Your task to perform on an android device: open sync settings in chrome Image 0: 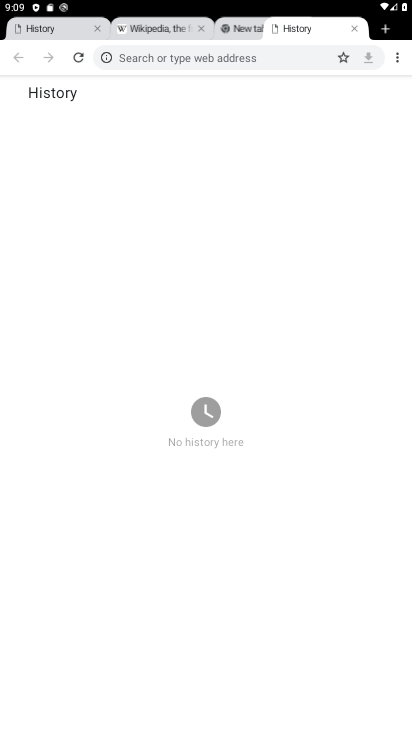
Step 0: press home button
Your task to perform on an android device: open sync settings in chrome Image 1: 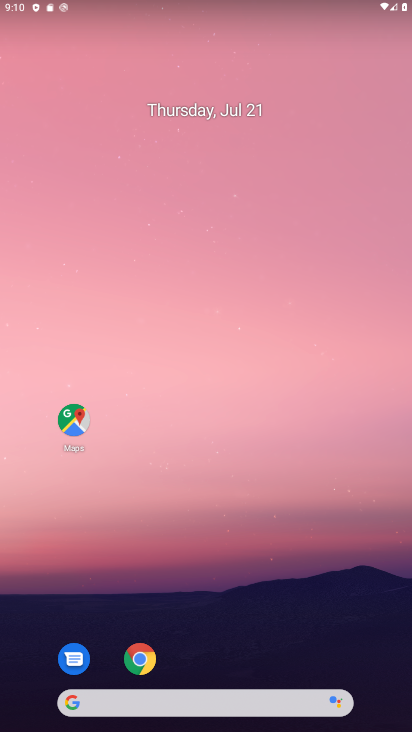
Step 1: click (166, 653)
Your task to perform on an android device: open sync settings in chrome Image 2: 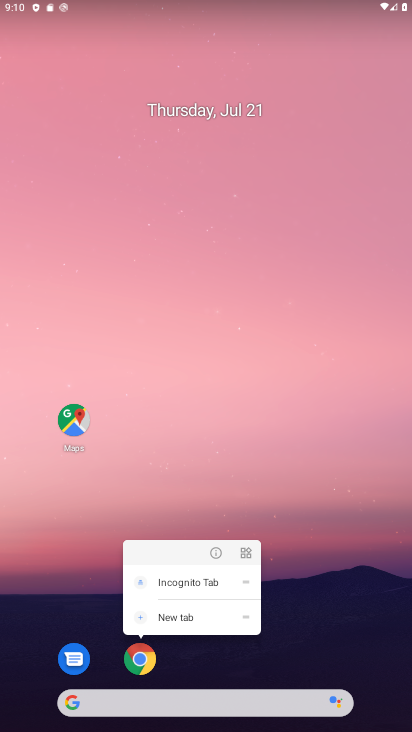
Step 2: click (283, 647)
Your task to perform on an android device: open sync settings in chrome Image 3: 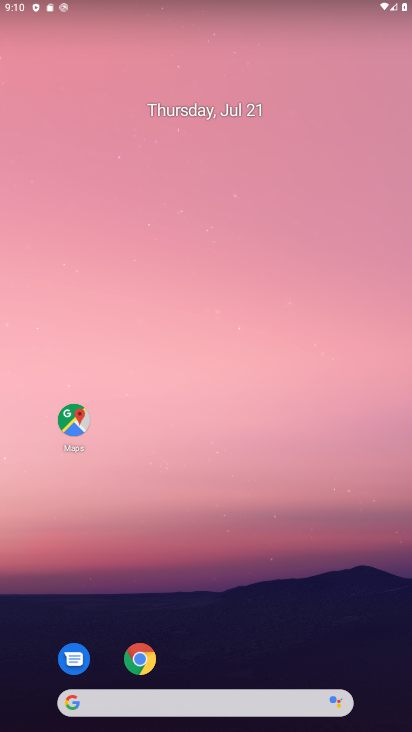
Step 3: drag from (277, 673) to (351, 12)
Your task to perform on an android device: open sync settings in chrome Image 4: 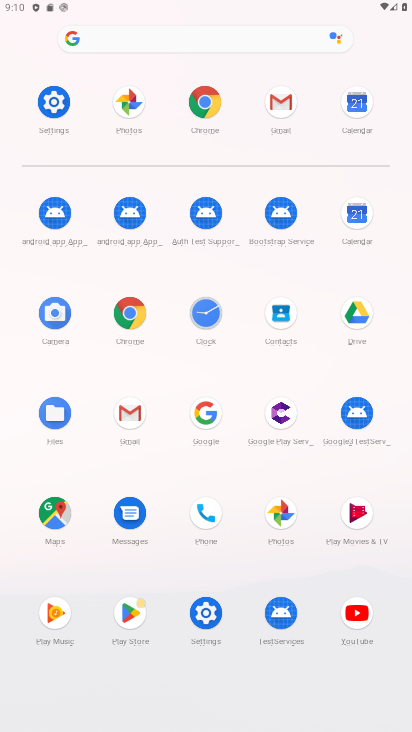
Step 4: click (215, 112)
Your task to perform on an android device: open sync settings in chrome Image 5: 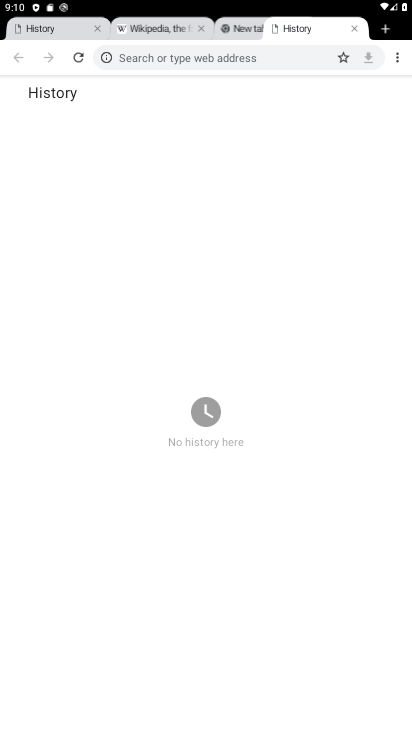
Step 5: drag from (392, 55) to (305, 258)
Your task to perform on an android device: open sync settings in chrome Image 6: 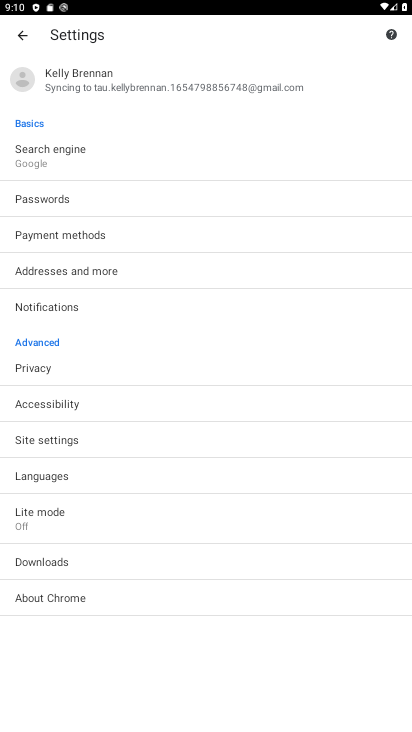
Step 6: click (127, 94)
Your task to perform on an android device: open sync settings in chrome Image 7: 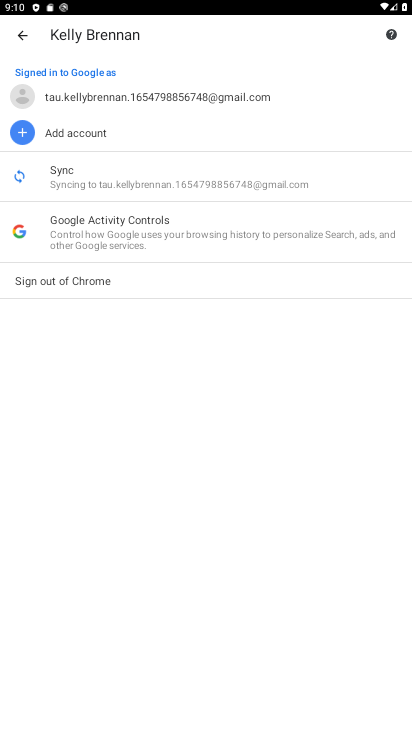
Step 7: click (98, 184)
Your task to perform on an android device: open sync settings in chrome Image 8: 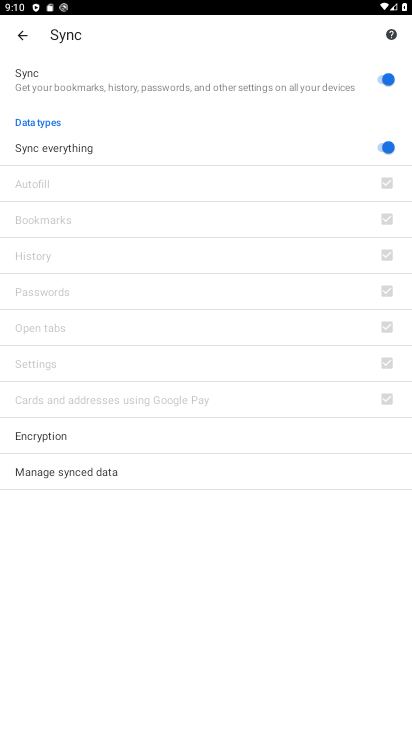
Step 8: task complete